Your task to perform on an android device: delete the emails in spam in the gmail app Image 0: 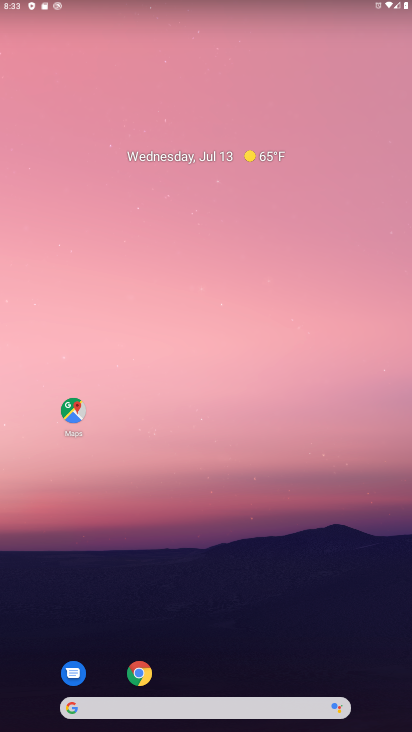
Step 0: drag from (180, 702) to (232, 337)
Your task to perform on an android device: delete the emails in spam in the gmail app Image 1: 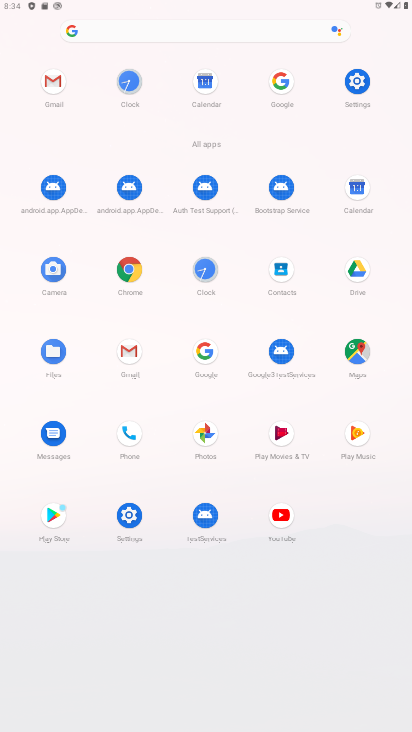
Step 1: click (54, 79)
Your task to perform on an android device: delete the emails in spam in the gmail app Image 2: 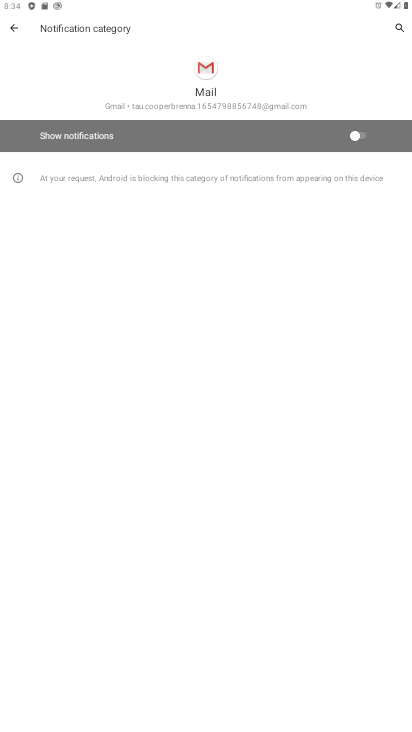
Step 2: press back button
Your task to perform on an android device: delete the emails in spam in the gmail app Image 3: 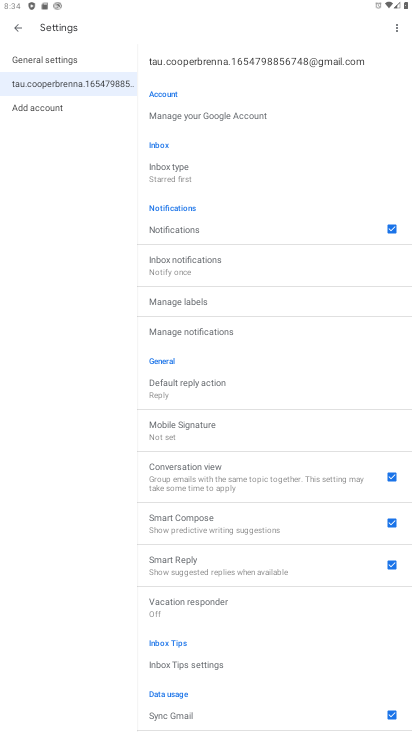
Step 3: press back button
Your task to perform on an android device: delete the emails in spam in the gmail app Image 4: 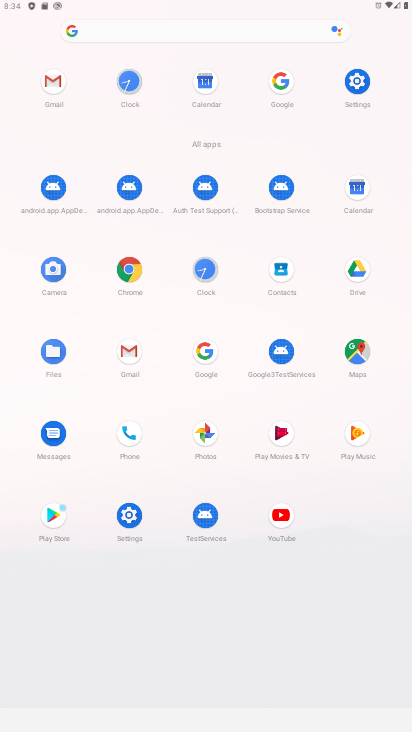
Step 4: click (53, 85)
Your task to perform on an android device: delete the emails in spam in the gmail app Image 5: 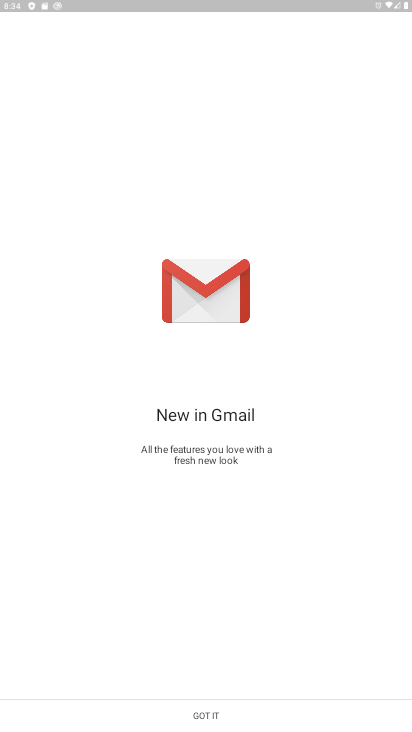
Step 5: click (216, 714)
Your task to perform on an android device: delete the emails in spam in the gmail app Image 6: 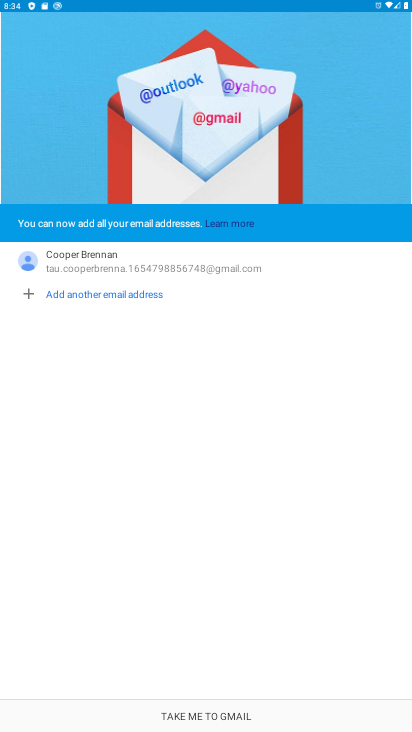
Step 6: click (182, 719)
Your task to perform on an android device: delete the emails in spam in the gmail app Image 7: 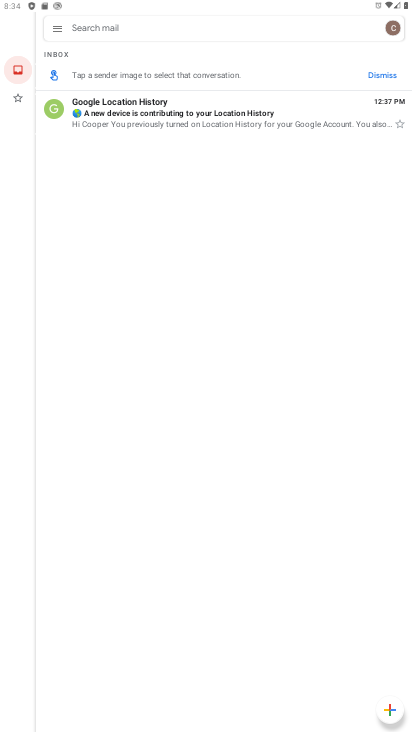
Step 7: click (58, 27)
Your task to perform on an android device: delete the emails in spam in the gmail app Image 8: 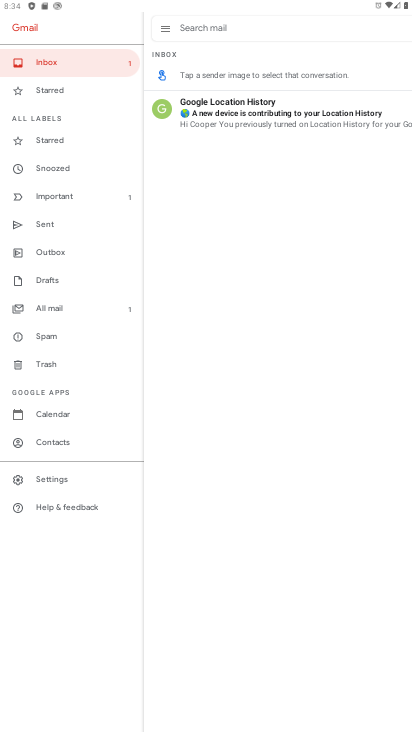
Step 8: click (40, 336)
Your task to perform on an android device: delete the emails in spam in the gmail app Image 9: 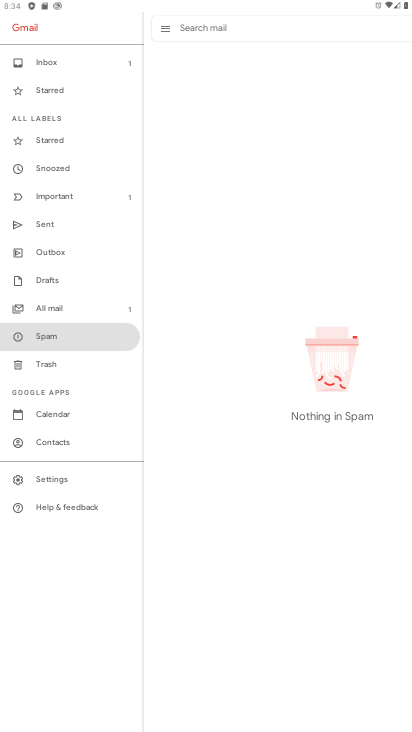
Step 9: task complete